Your task to perform on an android device: Find coffee shops on Maps Image 0: 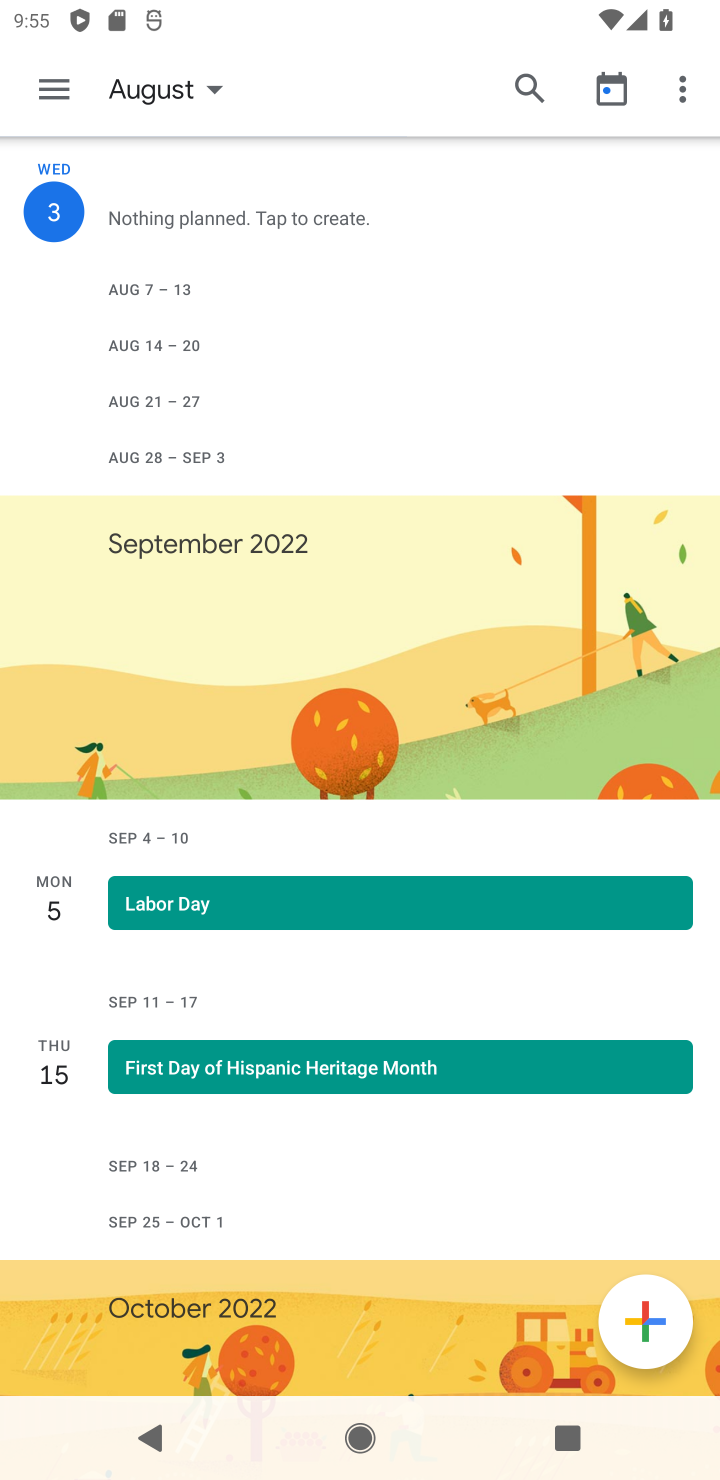
Step 0: press home button
Your task to perform on an android device: Find coffee shops on Maps Image 1: 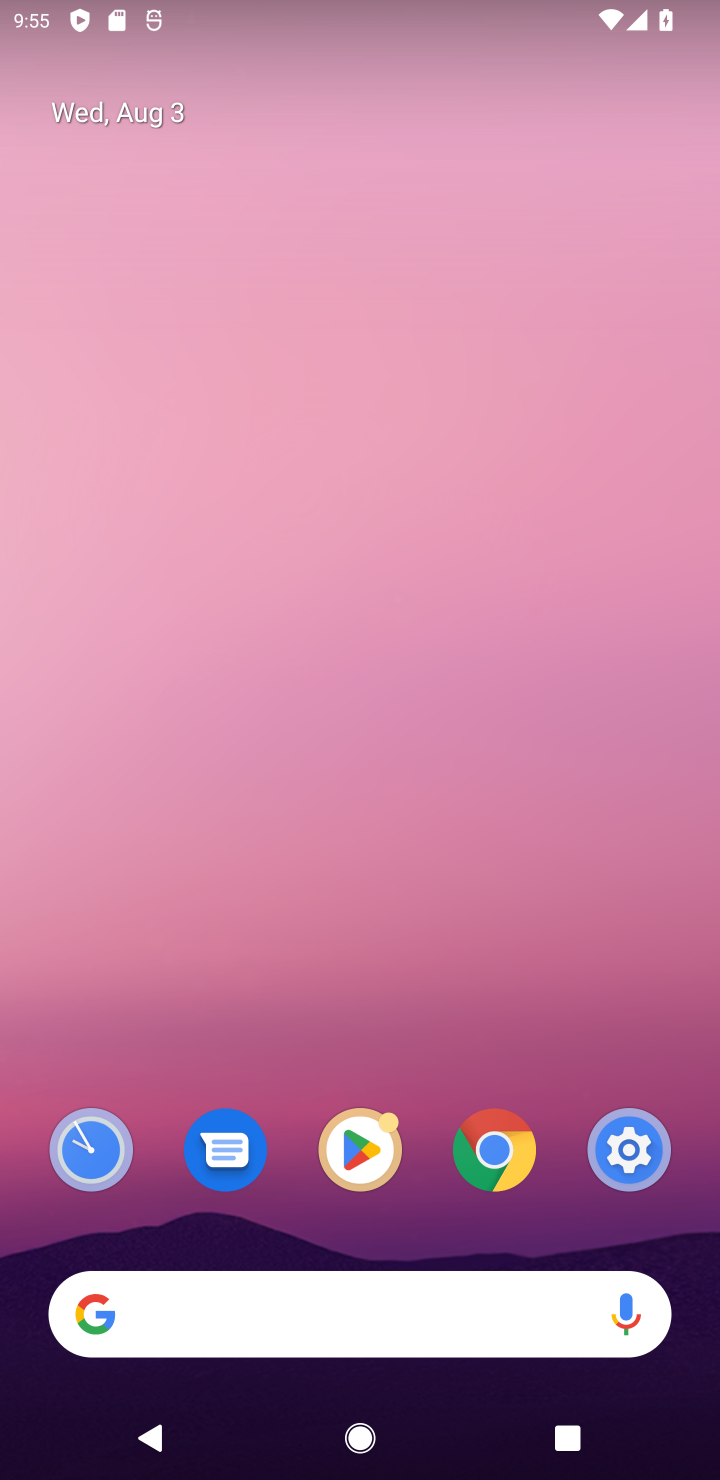
Step 1: drag from (338, 1065) to (359, 25)
Your task to perform on an android device: Find coffee shops on Maps Image 2: 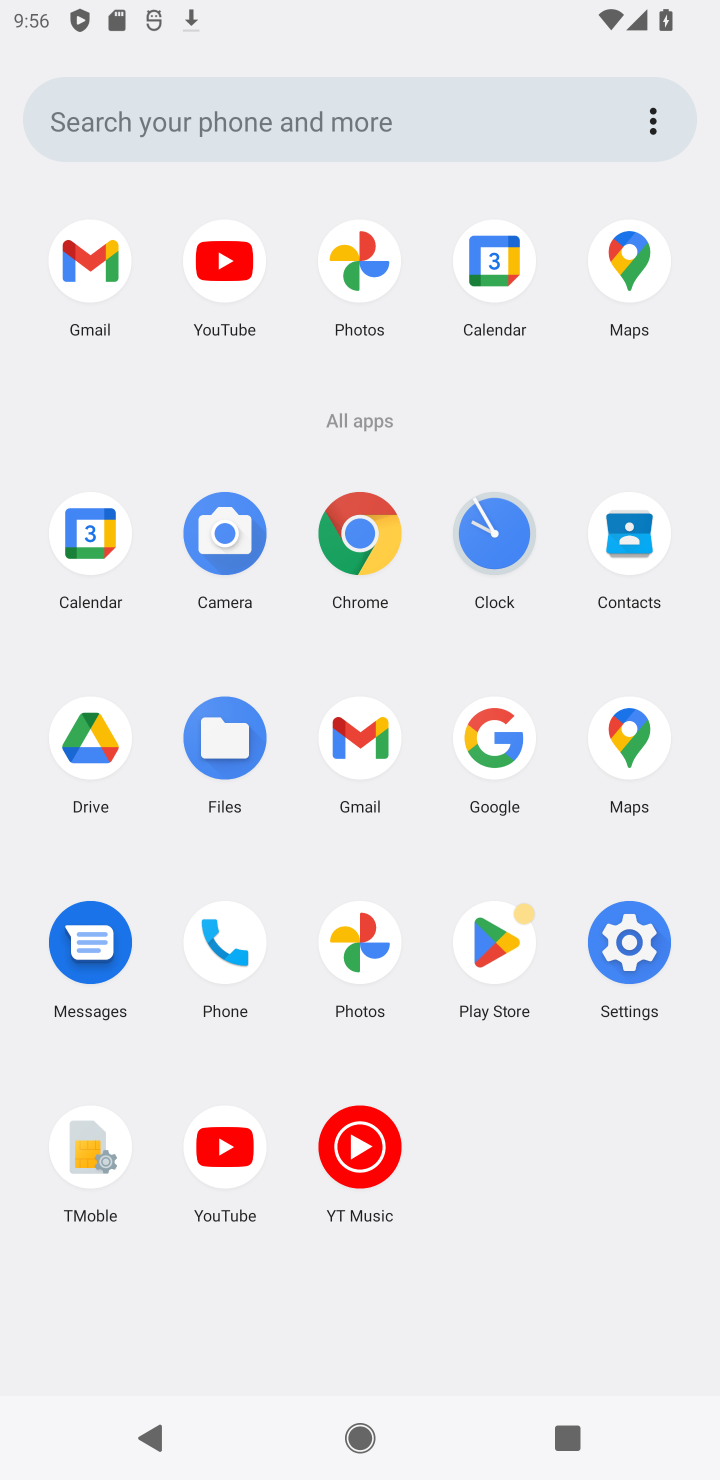
Step 2: click (632, 722)
Your task to perform on an android device: Find coffee shops on Maps Image 3: 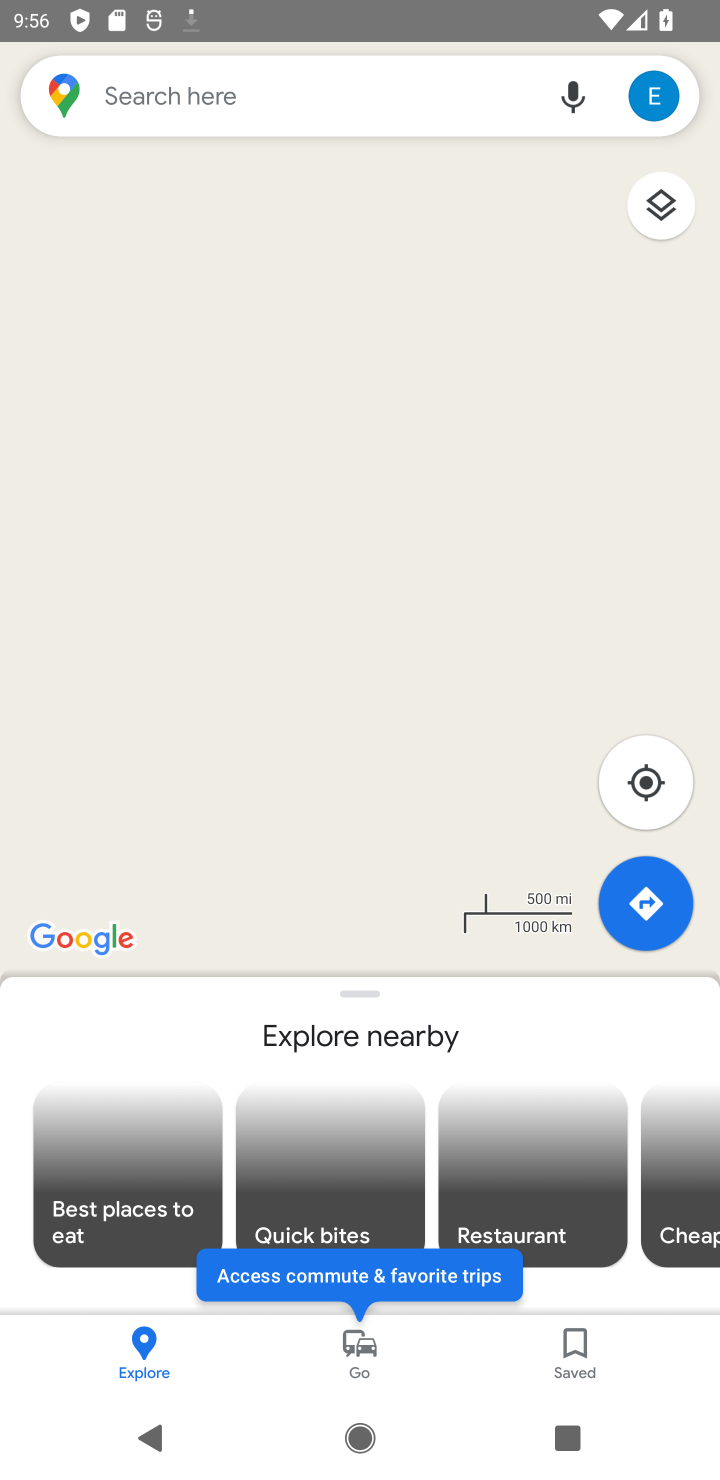
Step 3: click (164, 106)
Your task to perform on an android device: Find coffee shops on Maps Image 4: 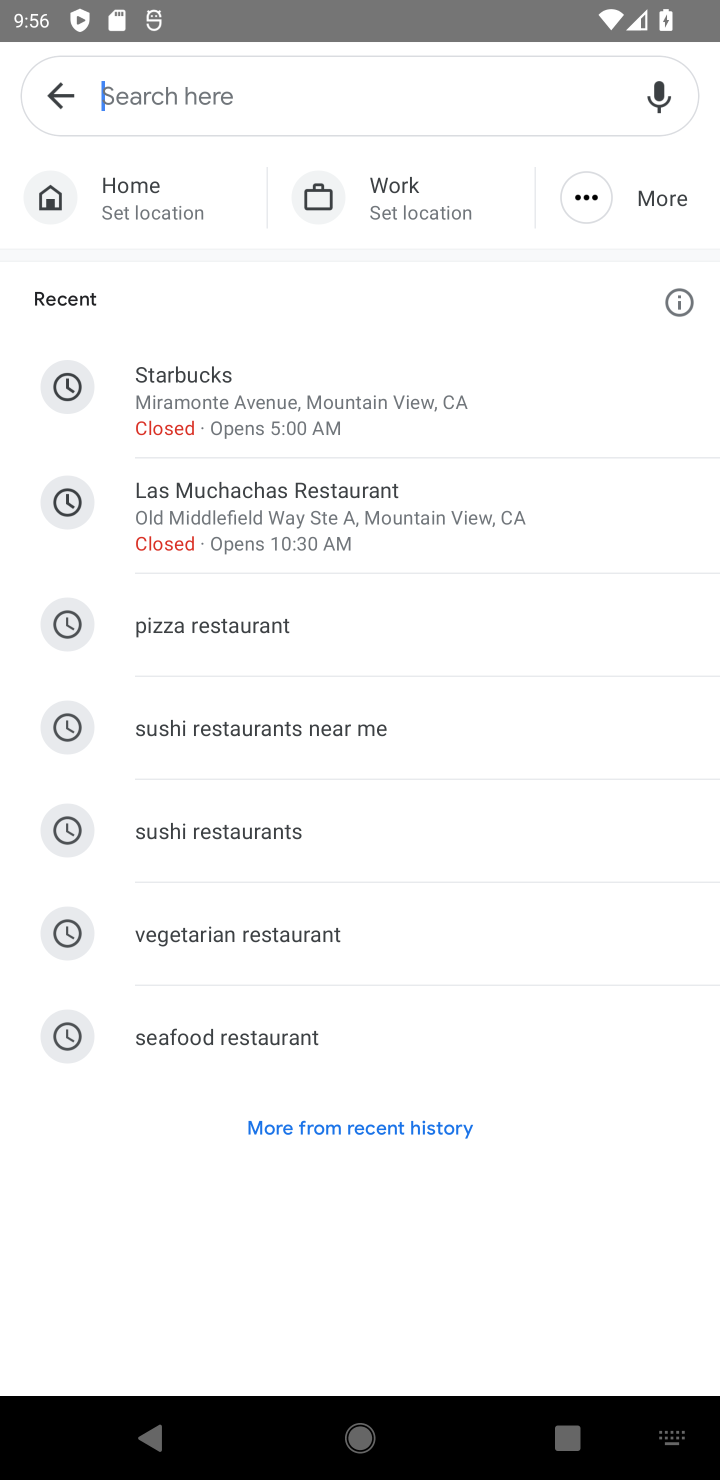
Step 4: type "coffee"
Your task to perform on an android device: Find coffee shops on Maps Image 5: 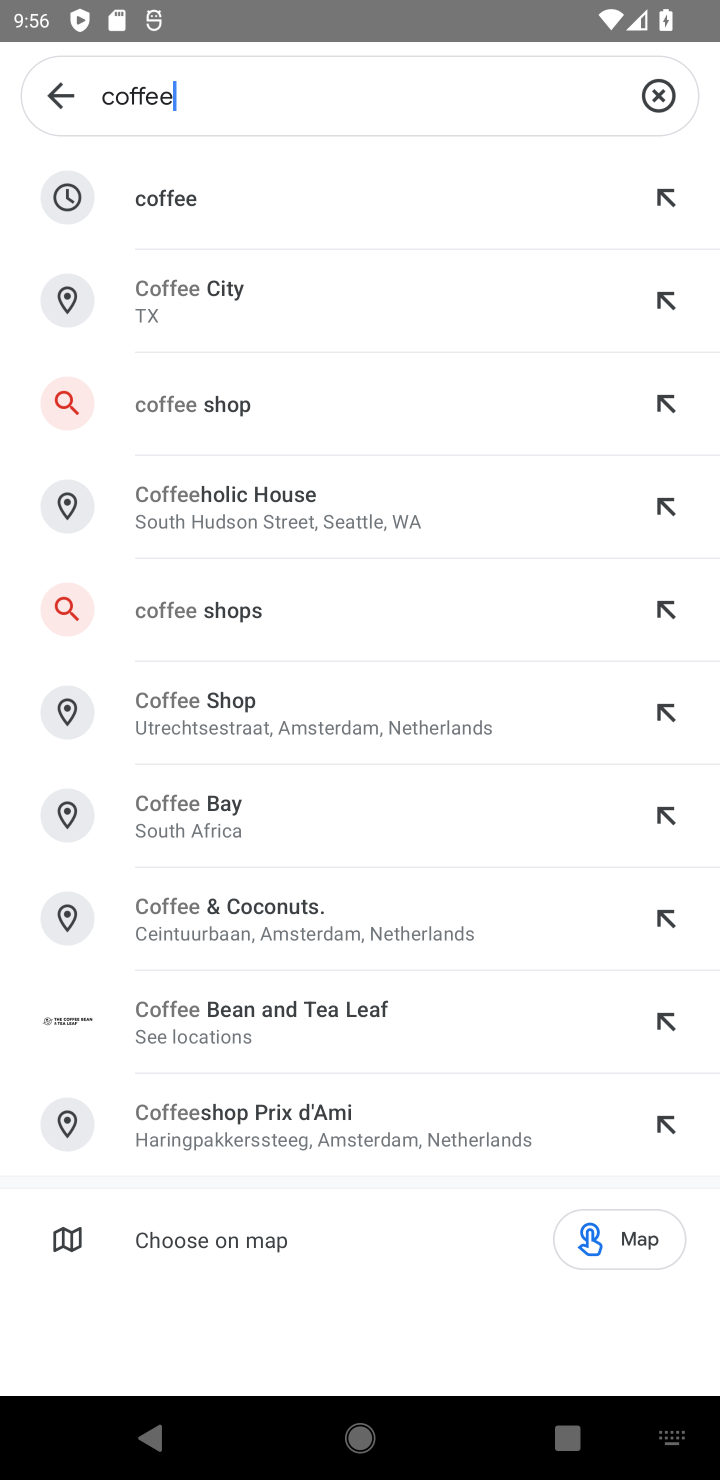
Step 5: click (251, 214)
Your task to perform on an android device: Find coffee shops on Maps Image 6: 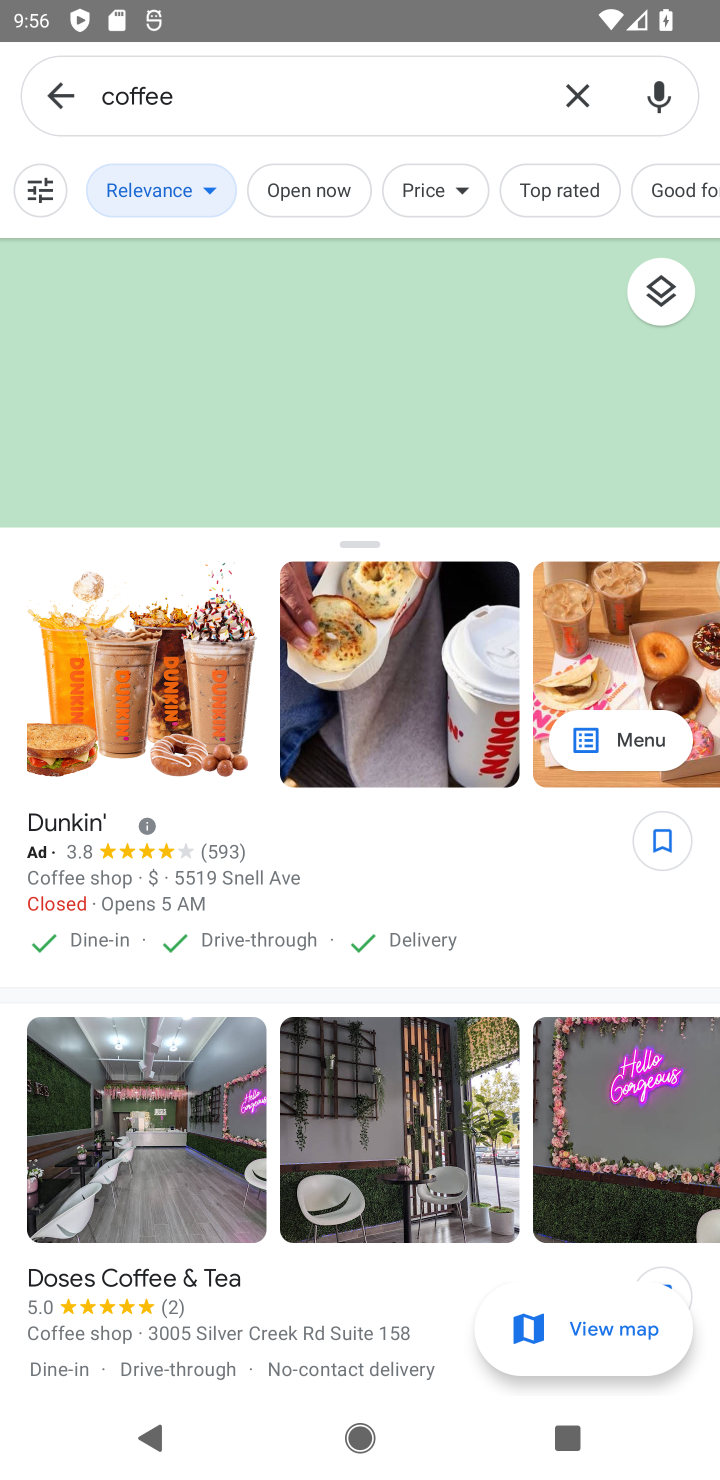
Step 6: task complete